Your task to perform on an android device: Go to Reddit.com Image 0: 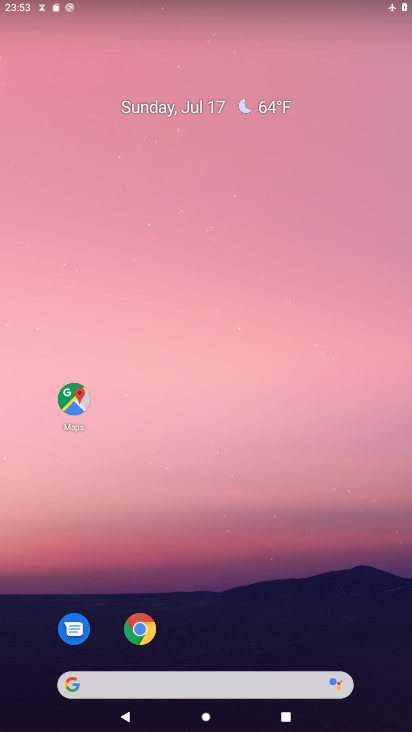
Step 0: drag from (232, 224) to (219, 183)
Your task to perform on an android device: Go to Reddit.com Image 1: 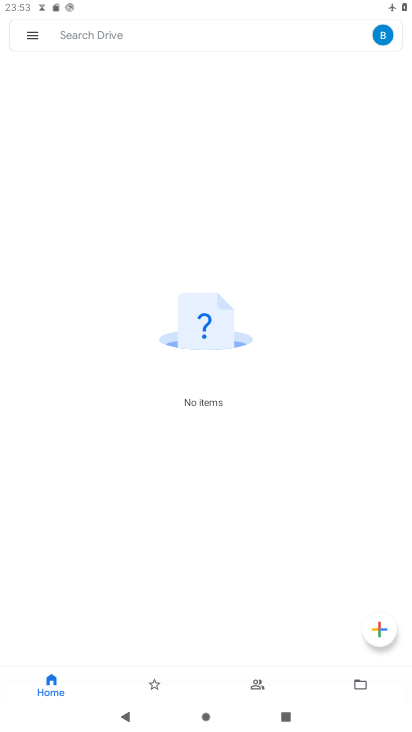
Step 1: press home button
Your task to perform on an android device: Go to Reddit.com Image 2: 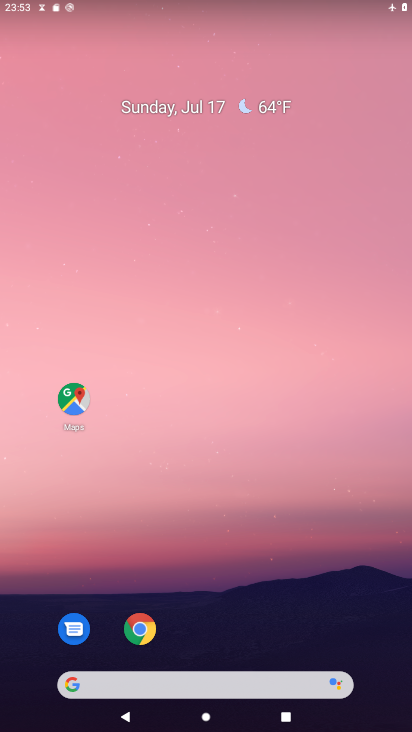
Step 2: drag from (161, 639) to (167, 156)
Your task to perform on an android device: Go to Reddit.com Image 3: 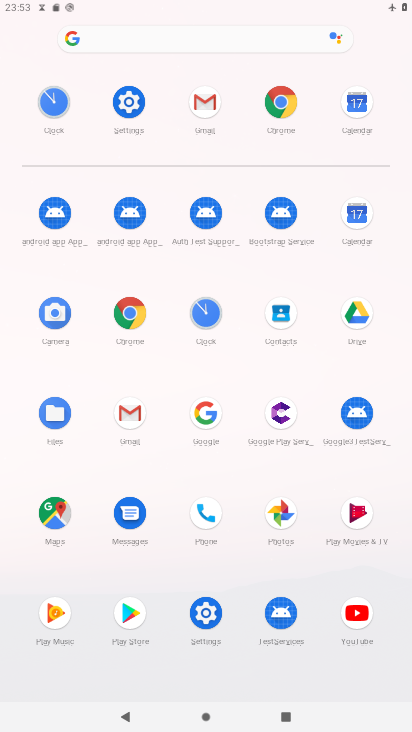
Step 3: click (275, 100)
Your task to perform on an android device: Go to Reddit.com Image 4: 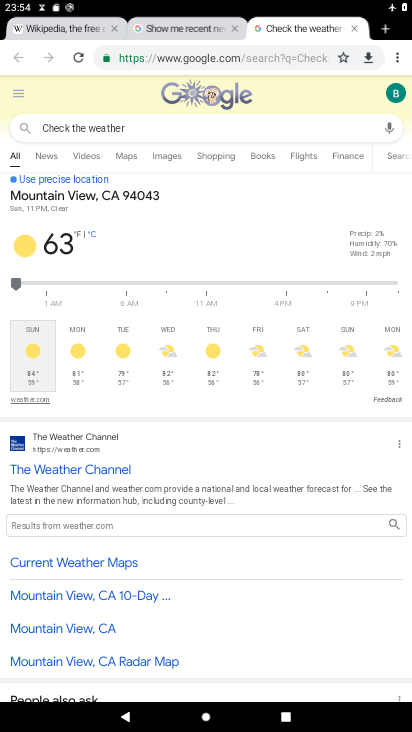
Step 4: click (386, 24)
Your task to perform on an android device: Go to Reddit.com Image 5: 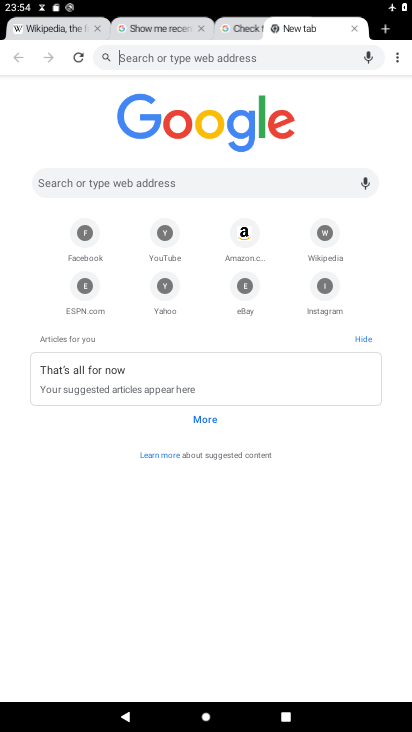
Step 5: click (189, 175)
Your task to perform on an android device: Go to Reddit.com Image 6: 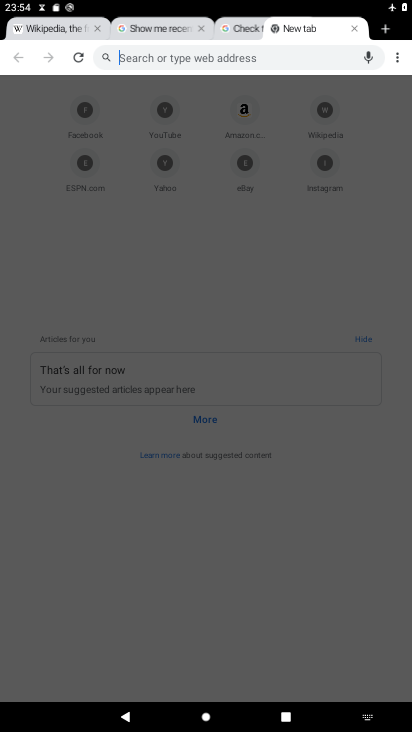
Step 6: type "Reddit.com "
Your task to perform on an android device: Go to Reddit.com Image 7: 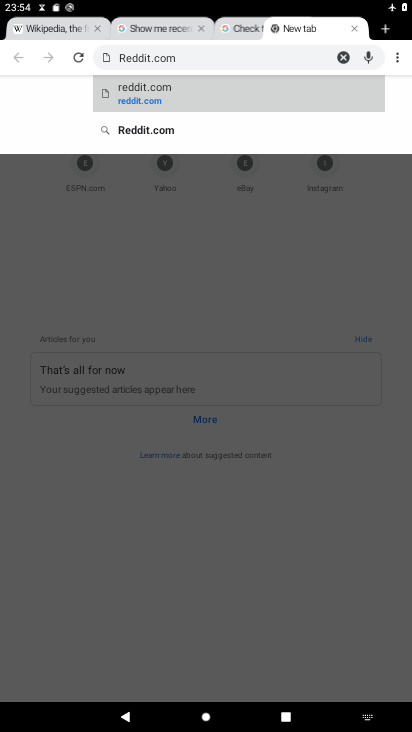
Step 7: click (178, 89)
Your task to perform on an android device: Go to Reddit.com Image 8: 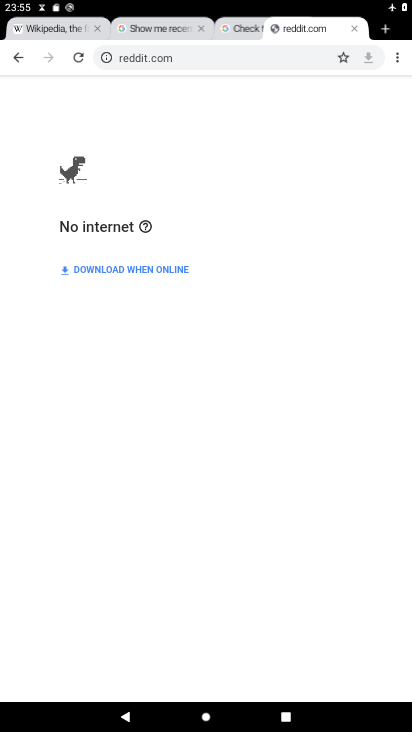
Step 8: task complete